Your task to perform on an android device: turn on improve location accuracy Image 0: 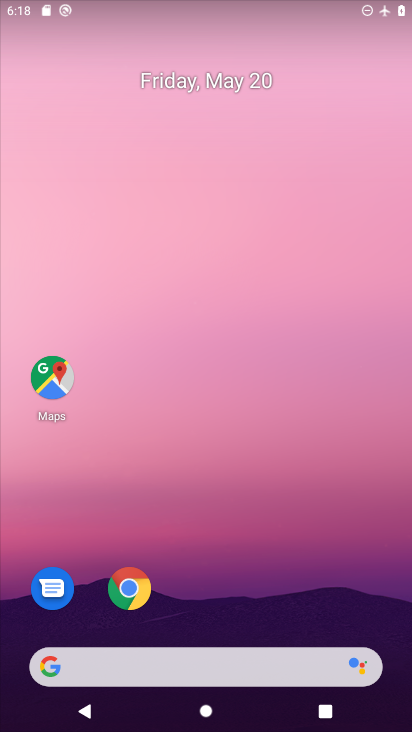
Step 0: drag from (216, 605) to (189, 215)
Your task to perform on an android device: turn on improve location accuracy Image 1: 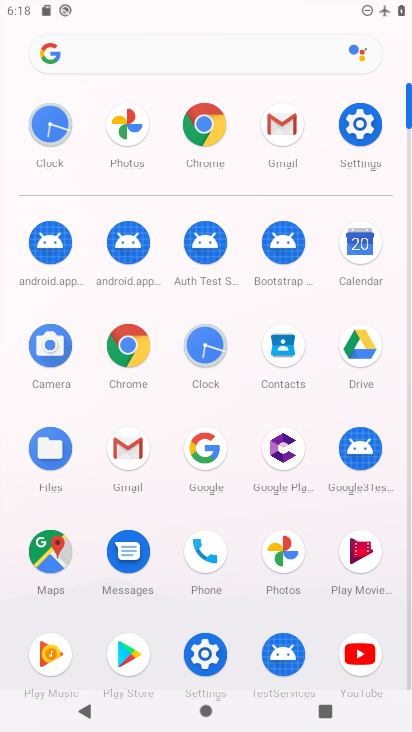
Step 1: click (357, 163)
Your task to perform on an android device: turn on improve location accuracy Image 2: 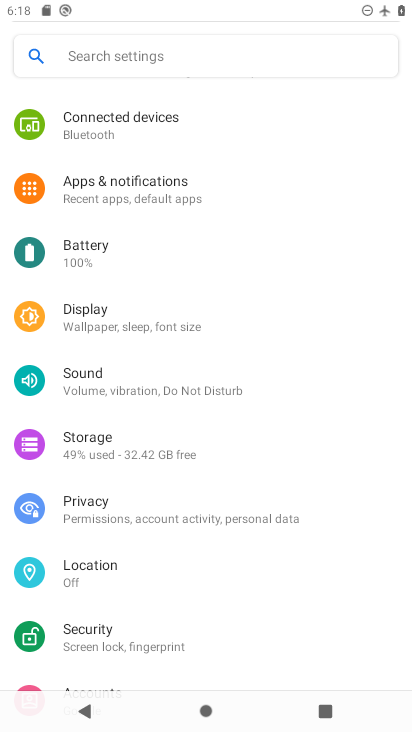
Step 2: click (83, 590)
Your task to perform on an android device: turn on improve location accuracy Image 3: 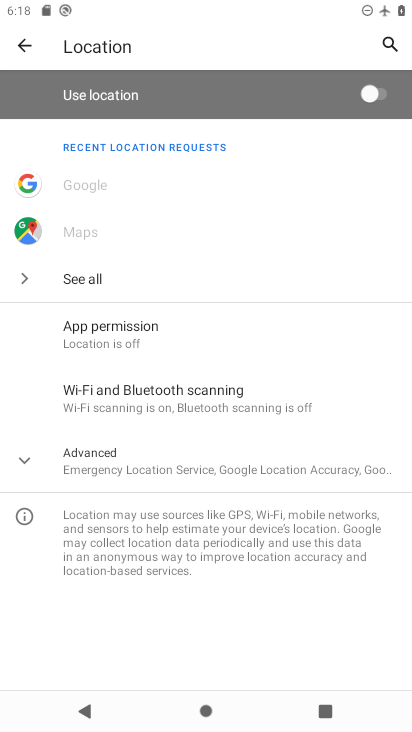
Step 3: click (118, 465)
Your task to perform on an android device: turn on improve location accuracy Image 4: 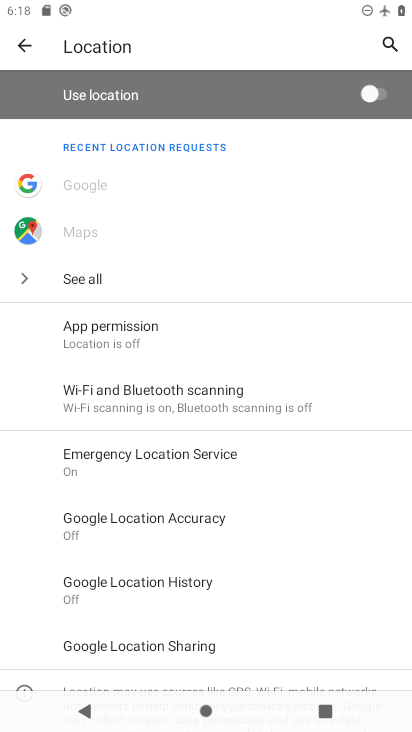
Step 4: click (137, 531)
Your task to perform on an android device: turn on improve location accuracy Image 5: 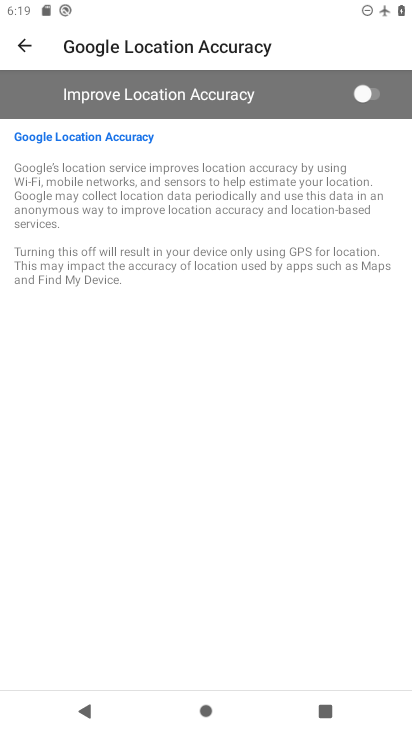
Step 5: click (379, 92)
Your task to perform on an android device: turn on improve location accuracy Image 6: 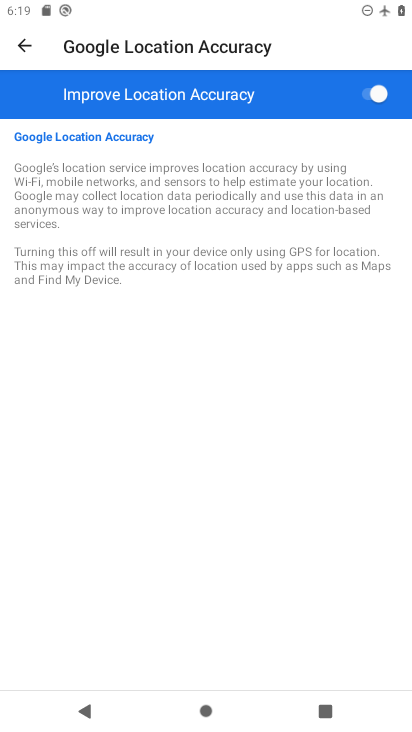
Step 6: task complete